Your task to perform on an android device: check the backup settings in the google photos Image 0: 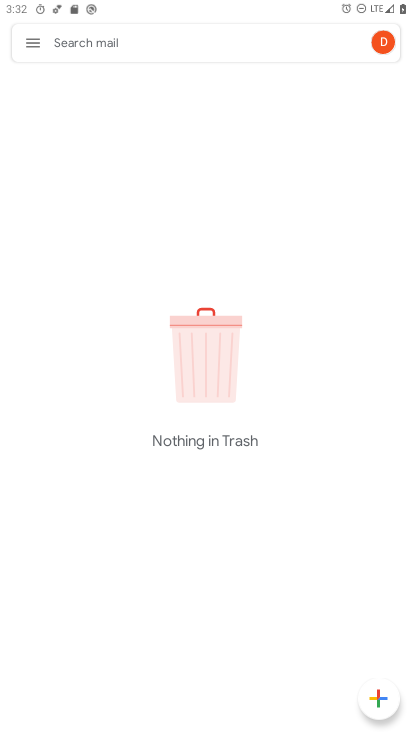
Step 0: press back button
Your task to perform on an android device: check the backup settings in the google photos Image 1: 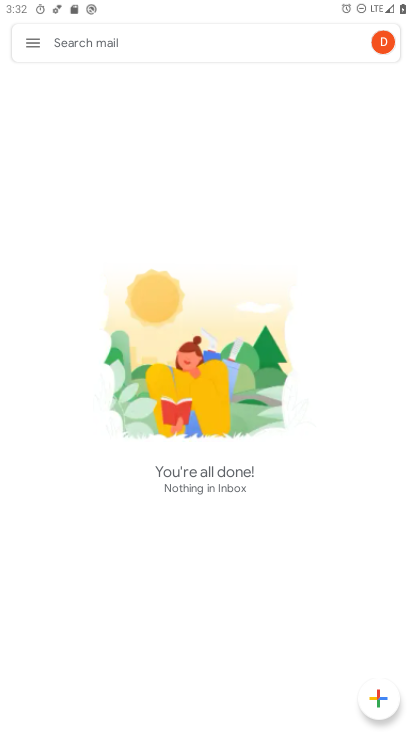
Step 1: press back button
Your task to perform on an android device: check the backup settings in the google photos Image 2: 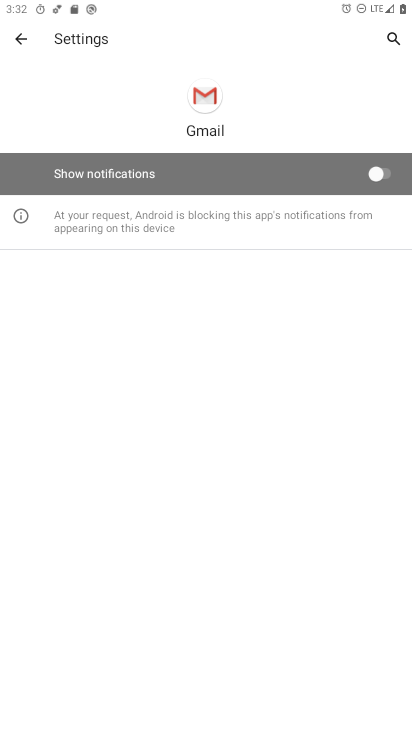
Step 2: press back button
Your task to perform on an android device: check the backup settings in the google photos Image 3: 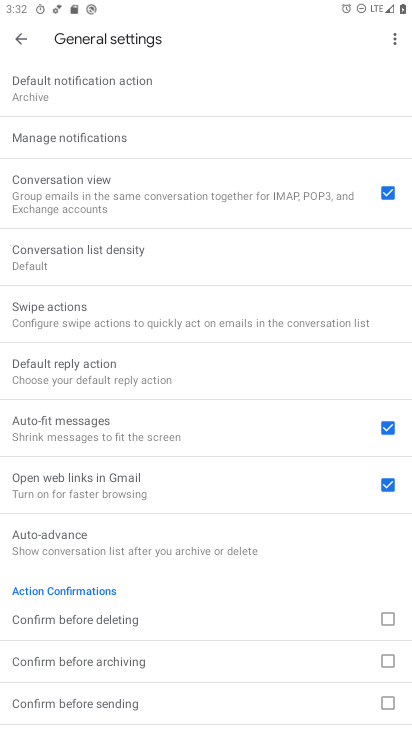
Step 3: press home button
Your task to perform on an android device: check the backup settings in the google photos Image 4: 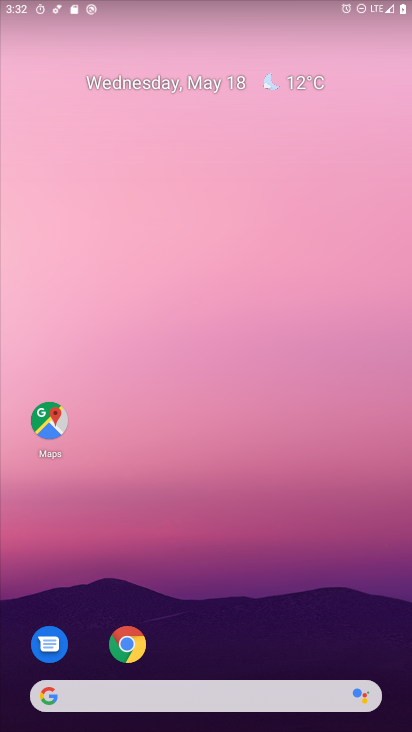
Step 4: drag from (396, 695) to (402, 216)
Your task to perform on an android device: check the backup settings in the google photos Image 5: 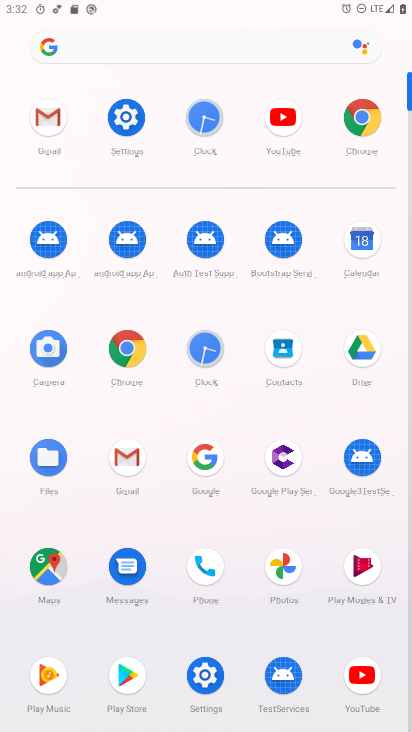
Step 5: click (291, 569)
Your task to perform on an android device: check the backup settings in the google photos Image 6: 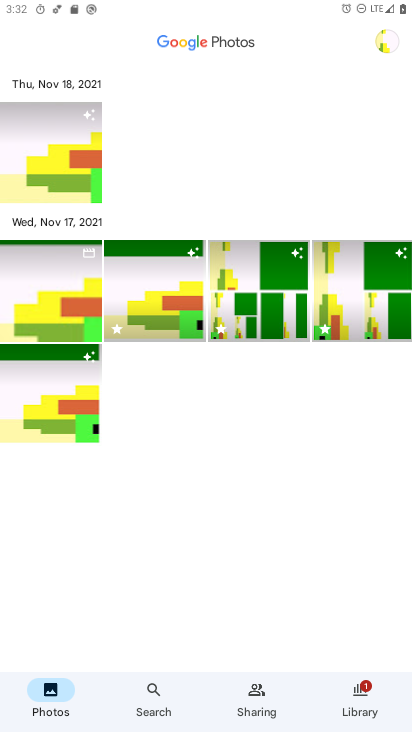
Step 6: click (393, 38)
Your task to perform on an android device: check the backup settings in the google photos Image 7: 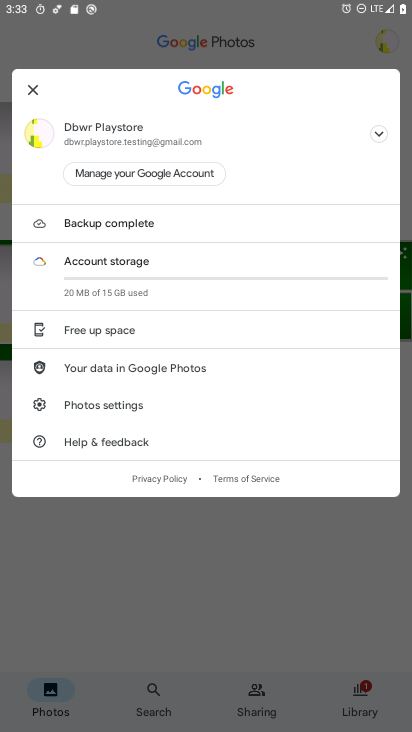
Step 7: click (122, 218)
Your task to perform on an android device: check the backup settings in the google photos Image 8: 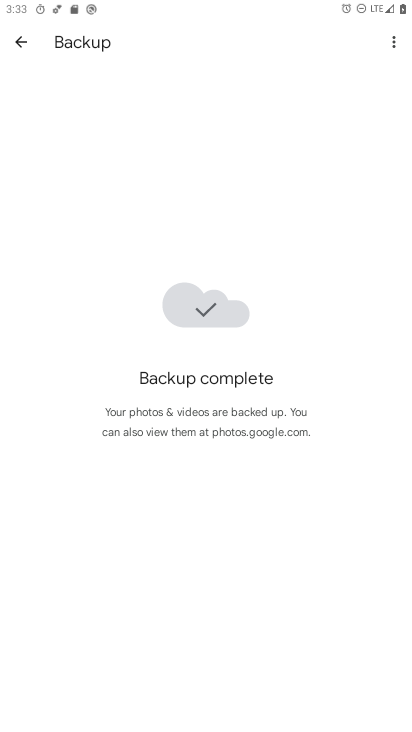
Step 8: task complete